Your task to perform on an android device: Open the Play Movies app and select the watchlist tab. Image 0: 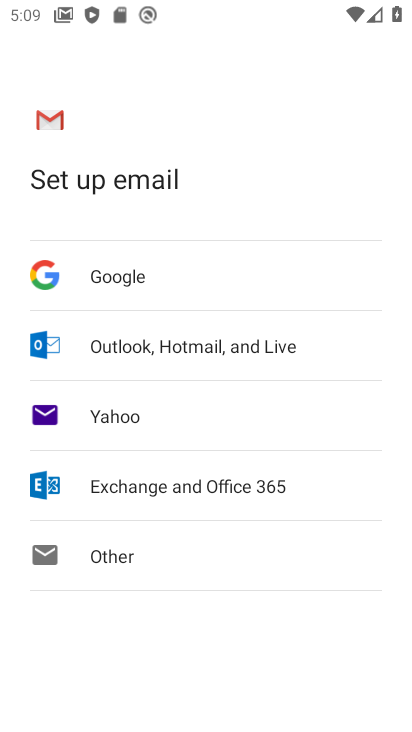
Step 0: press back button
Your task to perform on an android device: Open the Play Movies app and select the watchlist tab. Image 1: 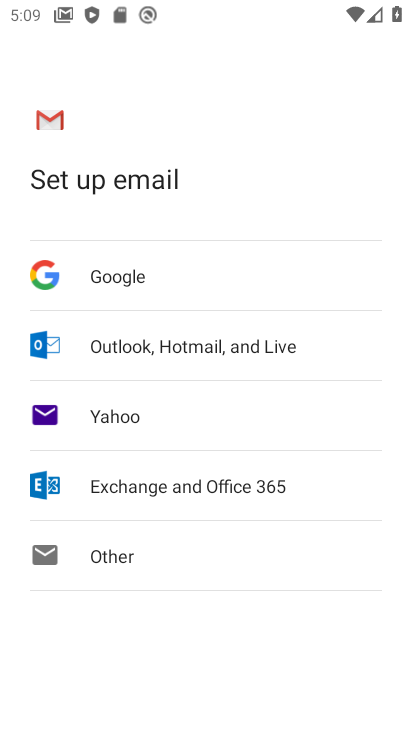
Step 1: press back button
Your task to perform on an android device: Open the Play Movies app and select the watchlist tab. Image 2: 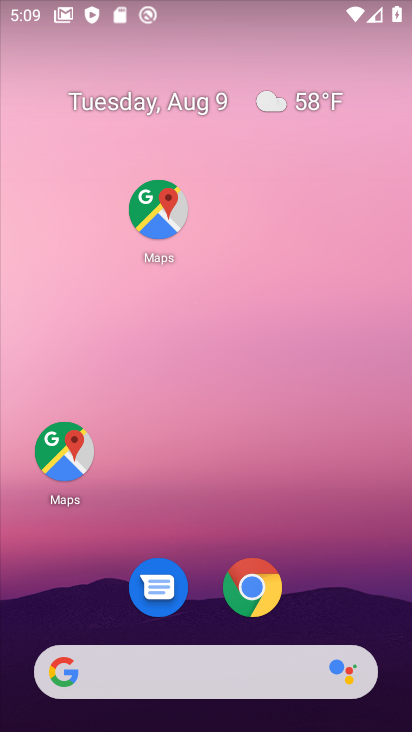
Step 2: drag from (197, 96) to (218, 10)
Your task to perform on an android device: Open the Play Movies app and select the watchlist tab. Image 3: 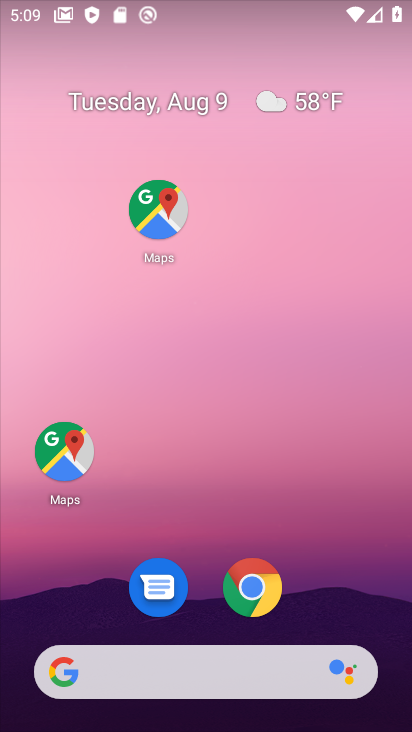
Step 3: drag from (209, 487) to (209, 16)
Your task to perform on an android device: Open the Play Movies app and select the watchlist tab. Image 4: 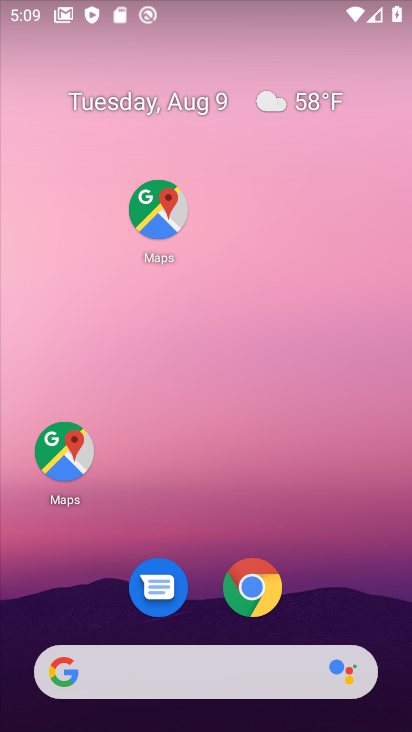
Step 4: drag from (184, 442) to (173, 62)
Your task to perform on an android device: Open the Play Movies app and select the watchlist tab. Image 5: 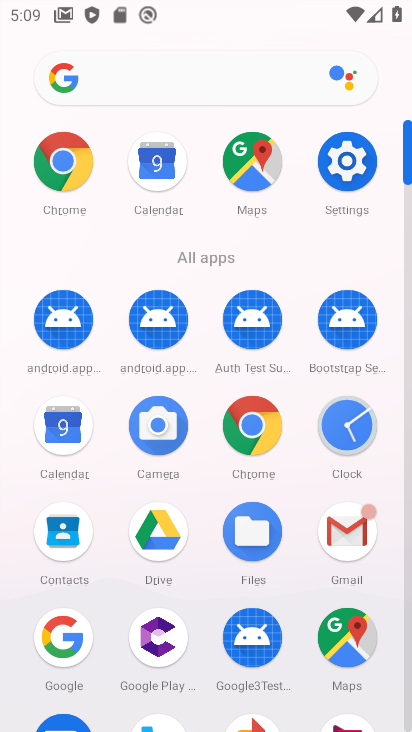
Step 5: drag from (294, 419) to (277, 41)
Your task to perform on an android device: Open the Play Movies app and select the watchlist tab. Image 6: 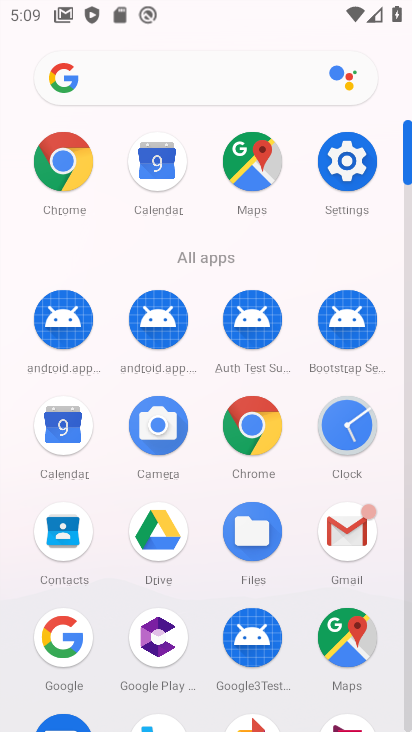
Step 6: drag from (315, 454) to (302, 129)
Your task to perform on an android device: Open the Play Movies app and select the watchlist tab. Image 7: 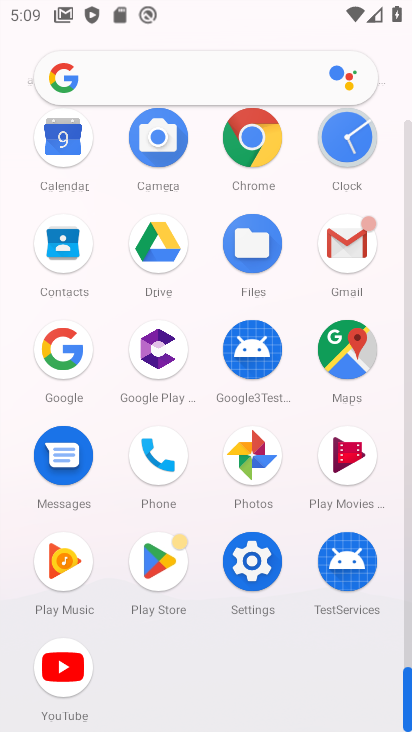
Step 7: click (358, 476)
Your task to perform on an android device: Open the Play Movies app and select the watchlist tab. Image 8: 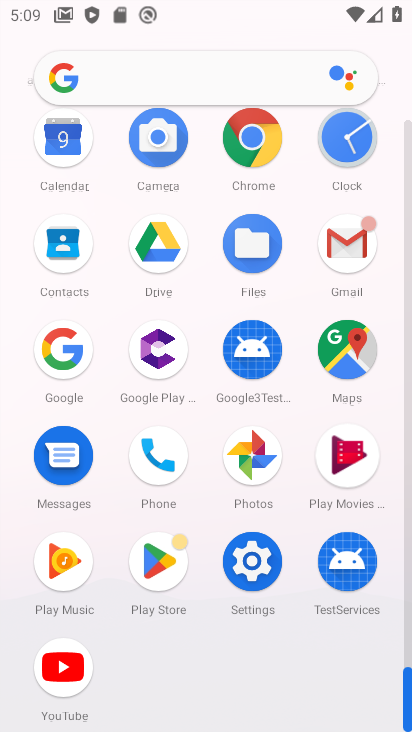
Step 8: click (348, 471)
Your task to perform on an android device: Open the Play Movies app and select the watchlist tab. Image 9: 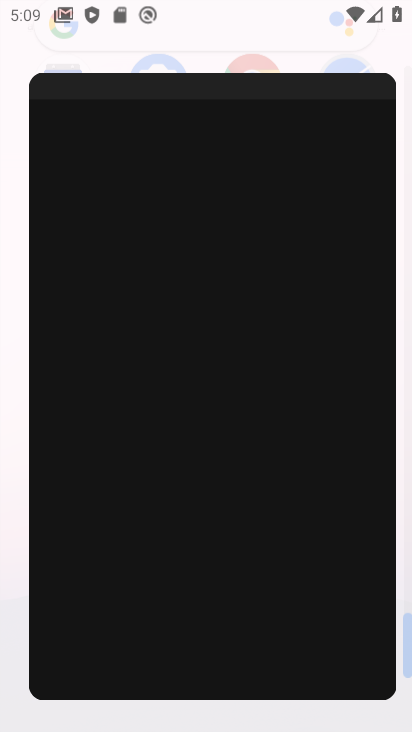
Step 9: click (350, 470)
Your task to perform on an android device: Open the Play Movies app and select the watchlist tab. Image 10: 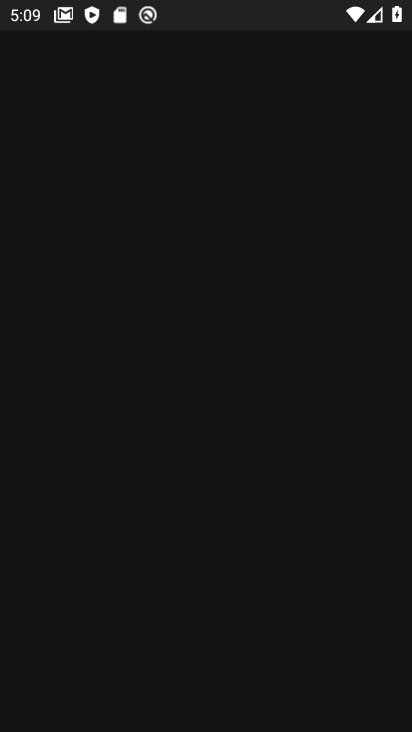
Step 10: click (354, 475)
Your task to perform on an android device: Open the Play Movies app and select the watchlist tab. Image 11: 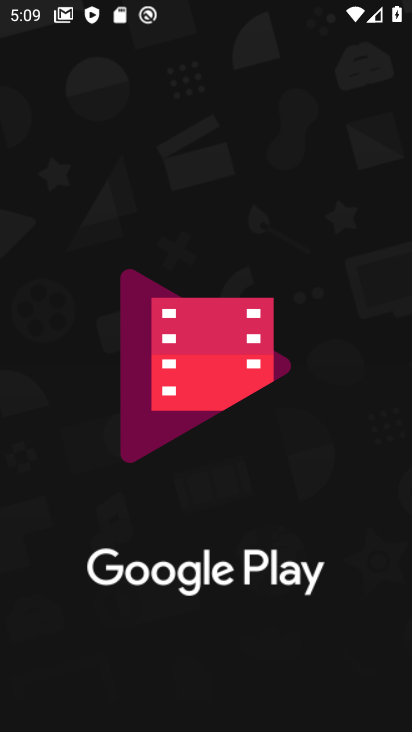
Step 11: click (271, 514)
Your task to perform on an android device: Open the Play Movies app and select the watchlist tab. Image 12: 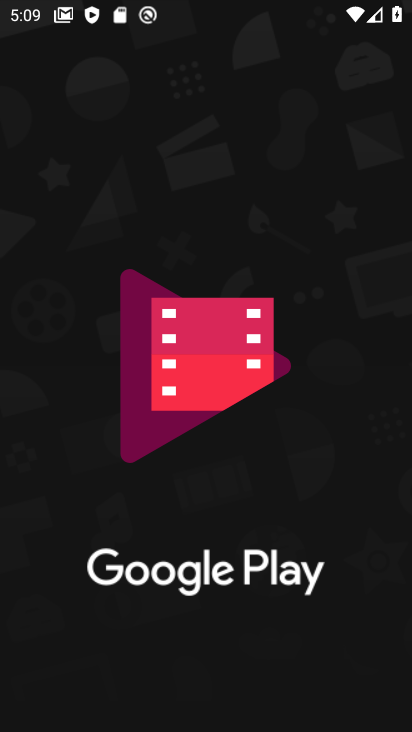
Step 12: click (272, 512)
Your task to perform on an android device: Open the Play Movies app and select the watchlist tab. Image 13: 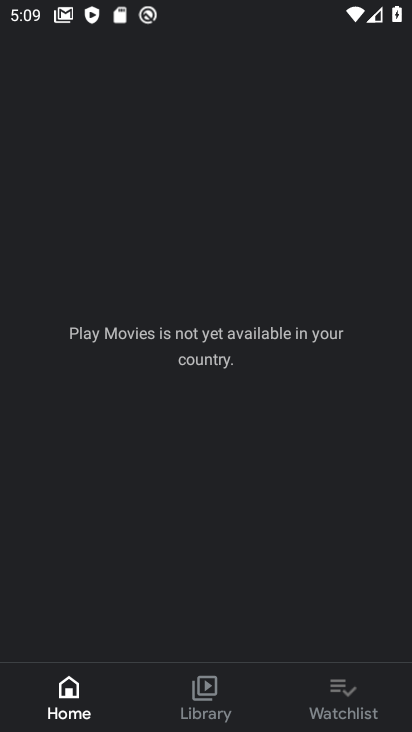
Step 13: click (359, 693)
Your task to perform on an android device: Open the Play Movies app and select the watchlist tab. Image 14: 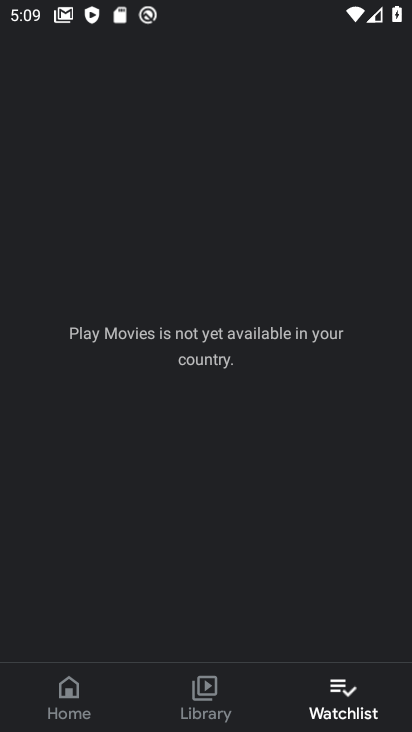
Step 14: task complete